Your task to perform on an android device: Open location settings Image 0: 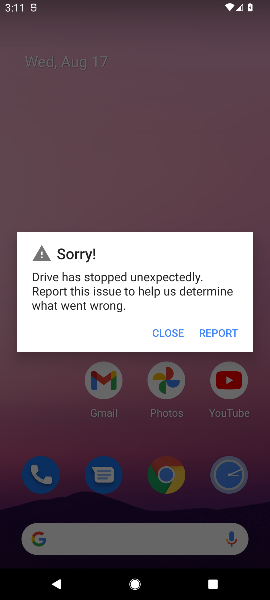
Step 0: click (165, 332)
Your task to perform on an android device: Open location settings Image 1: 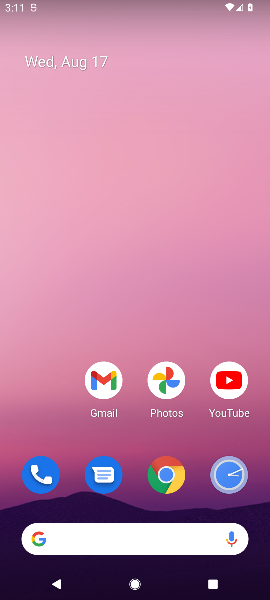
Step 1: drag from (146, 504) to (163, 18)
Your task to perform on an android device: Open location settings Image 2: 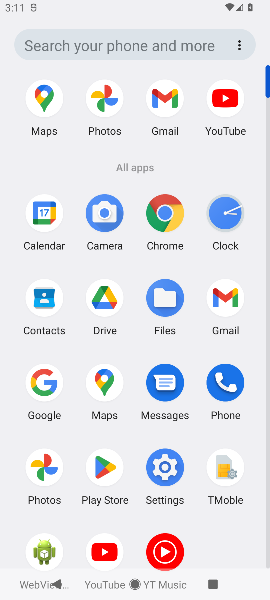
Step 2: click (171, 470)
Your task to perform on an android device: Open location settings Image 3: 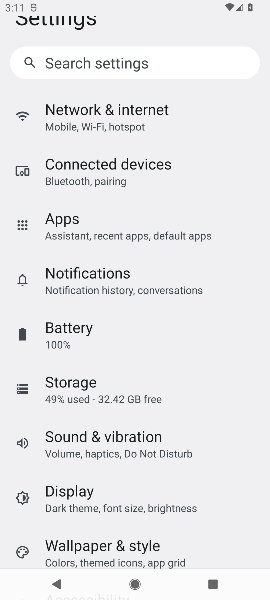
Step 3: drag from (171, 470) to (124, 104)
Your task to perform on an android device: Open location settings Image 4: 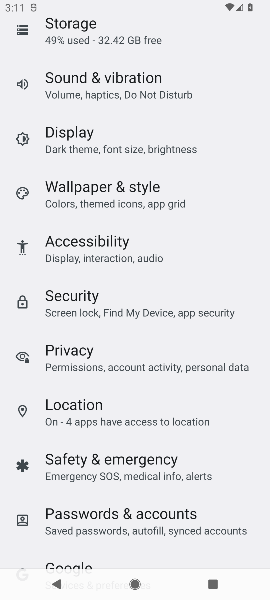
Step 4: click (62, 400)
Your task to perform on an android device: Open location settings Image 5: 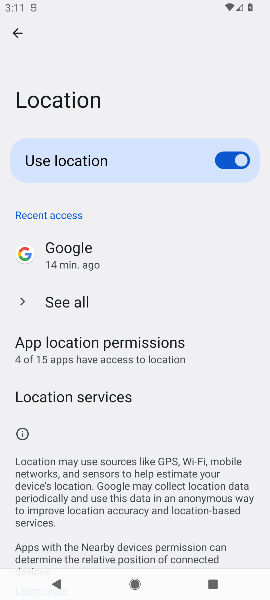
Step 5: task complete